Your task to perform on an android device: Go to Reddit.com Image 0: 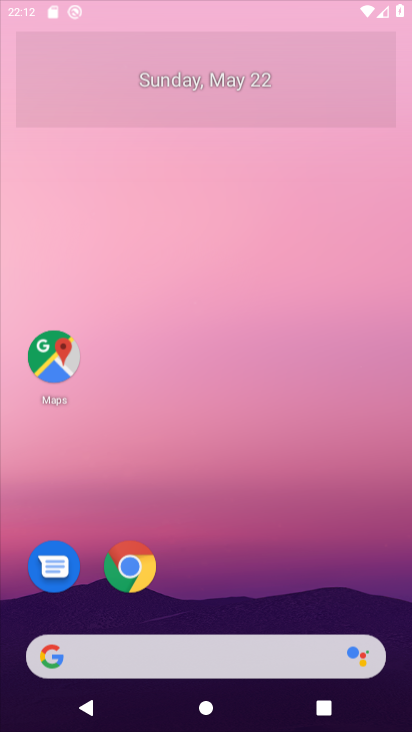
Step 0: press home button
Your task to perform on an android device: Go to Reddit.com Image 1: 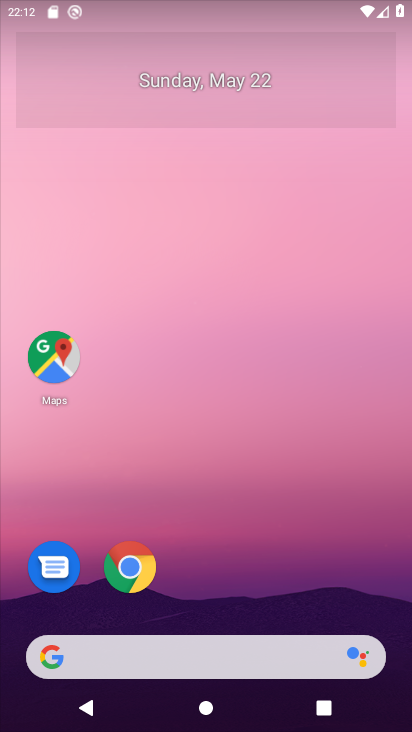
Step 1: click (126, 559)
Your task to perform on an android device: Go to Reddit.com Image 2: 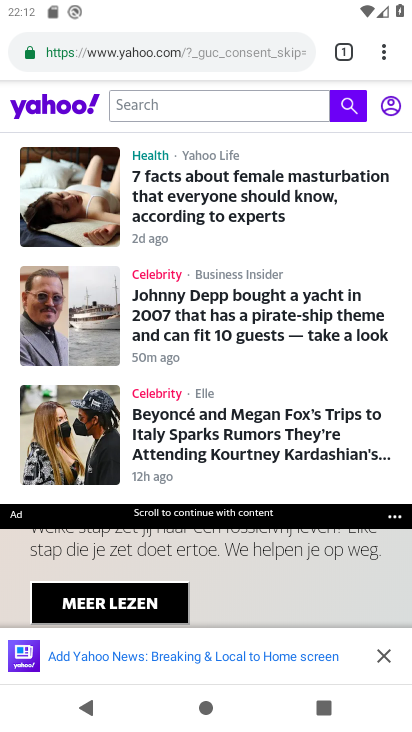
Step 2: click (346, 53)
Your task to perform on an android device: Go to Reddit.com Image 3: 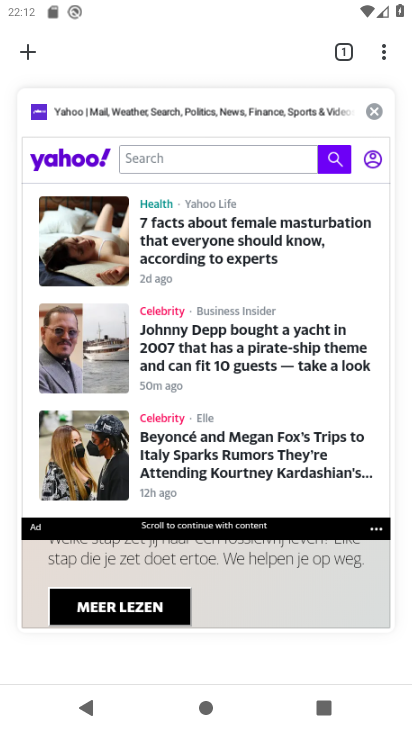
Step 3: click (374, 109)
Your task to perform on an android device: Go to Reddit.com Image 4: 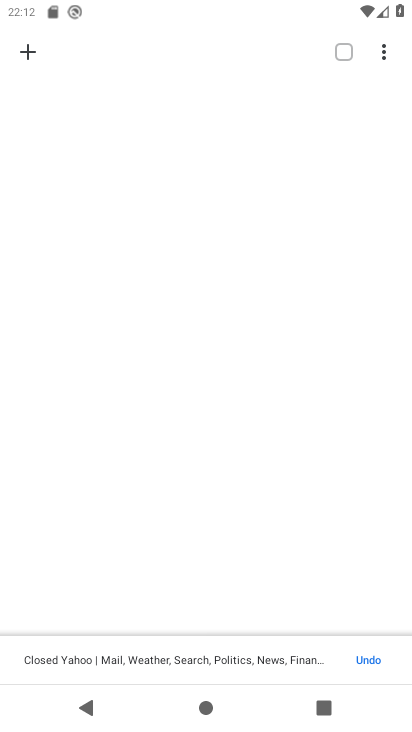
Step 4: click (29, 59)
Your task to perform on an android device: Go to Reddit.com Image 5: 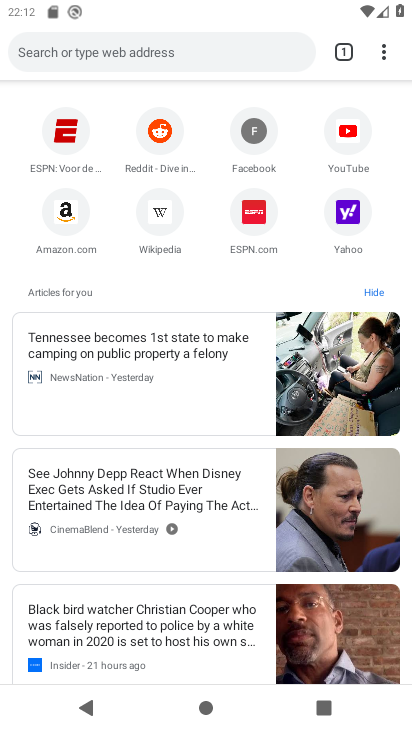
Step 5: click (186, 136)
Your task to perform on an android device: Go to Reddit.com Image 6: 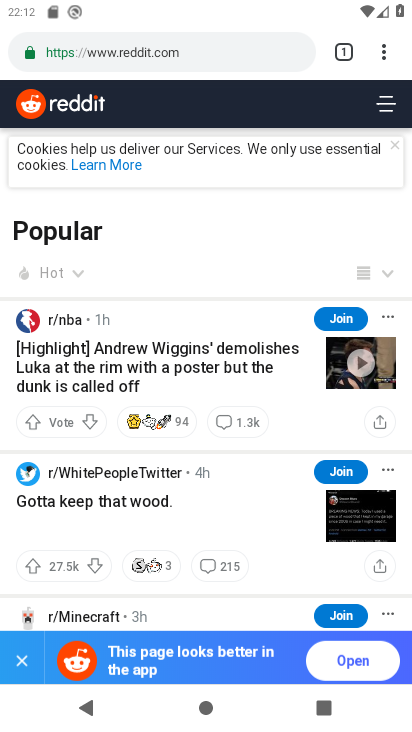
Step 6: task complete